Your task to perform on an android device: Check the news Image 0: 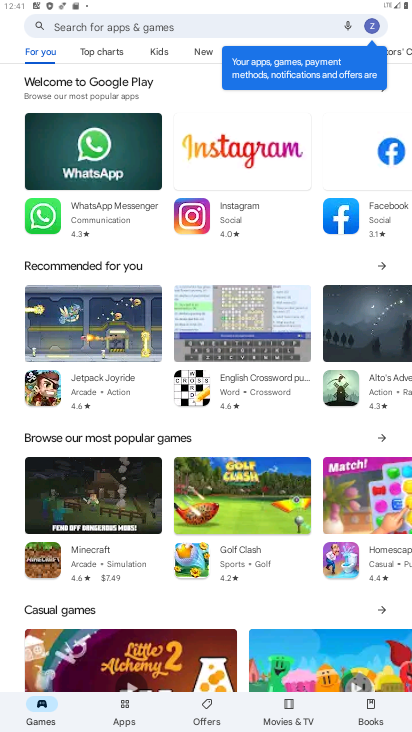
Step 0: press home button
Your task to perform on an android device: Check the news Image 1: 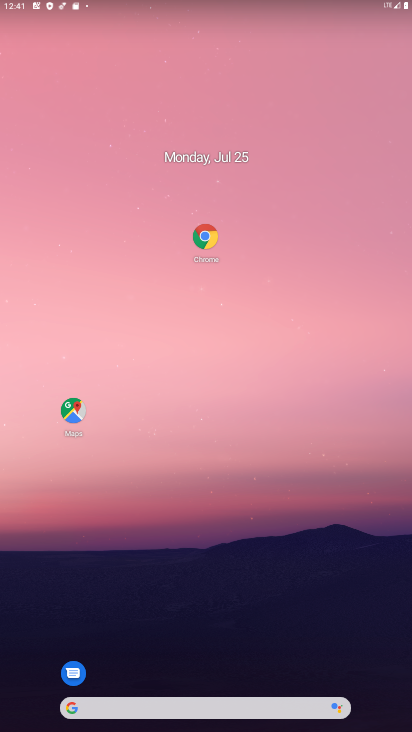
Step 1: drag from (191, 720) to (267, 21)
Your task to perform on an android device: Check the news Image 2: 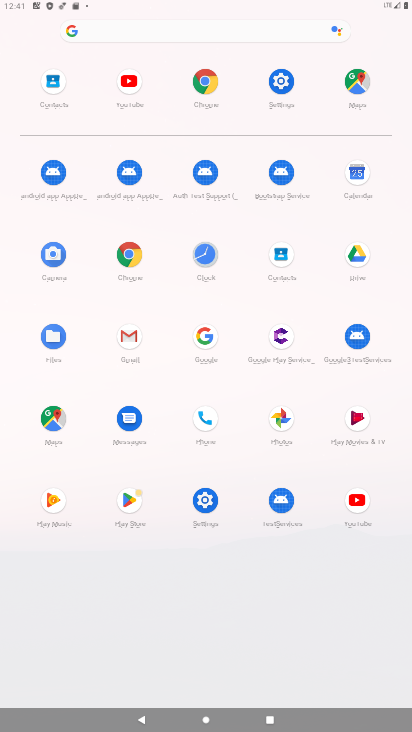
Step 2: click (124, 254)
Your task to perform on an android device: Check the news Image 3: 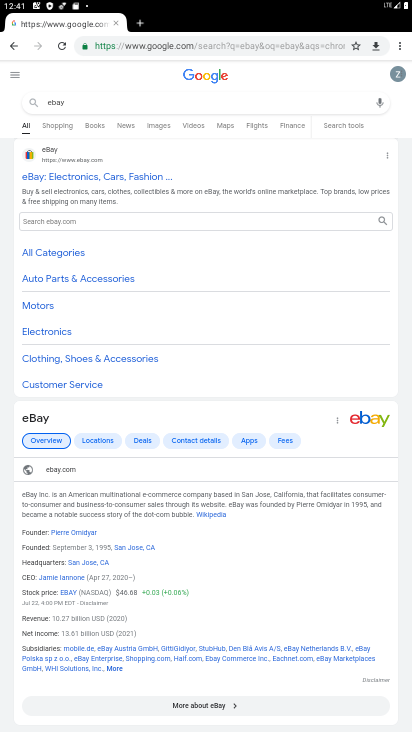
Step 3: click (169, 33)
Your task to perform on an android device: Check the news Image 4: 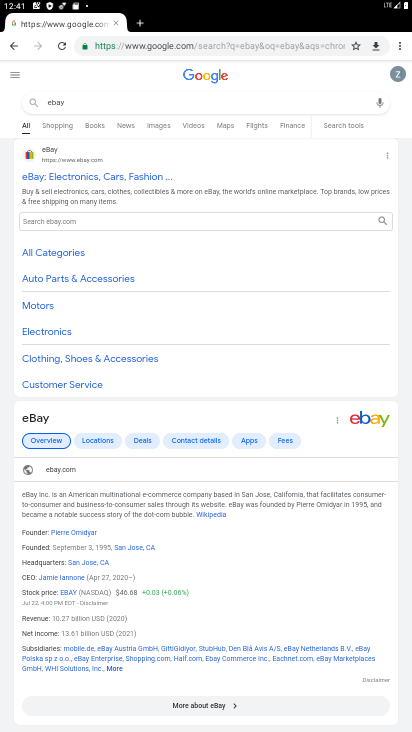
Step 4: click (163, 45)
Your task to perform on an android device: Check the news Image 5: 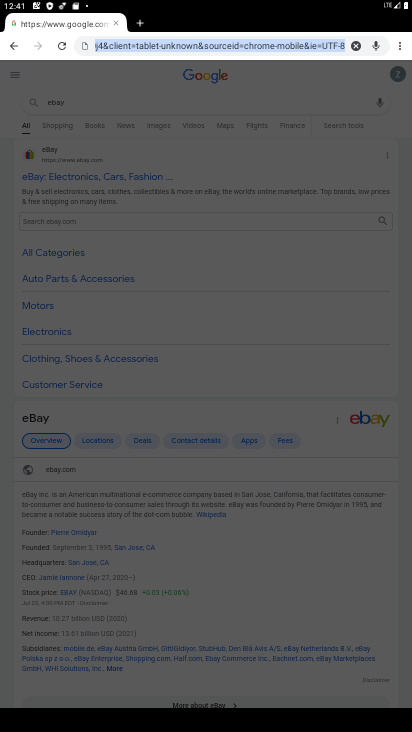
Step 5: click (355, 43)
Your task to perform on an android device: Check the news Image 6: 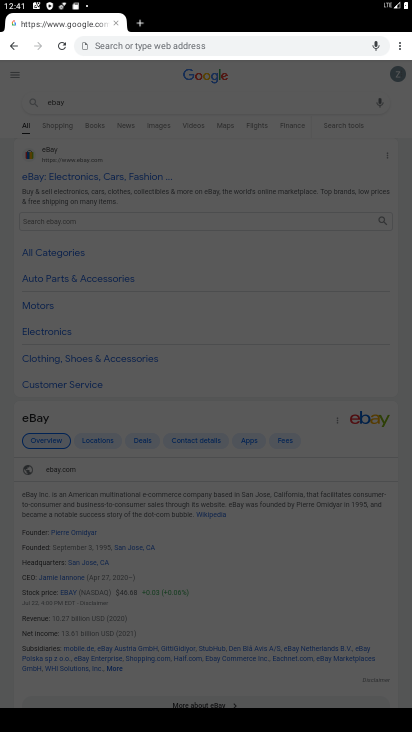
Step 6: type "check the news"
Your task to perform on an android device: Check the news Image 7: 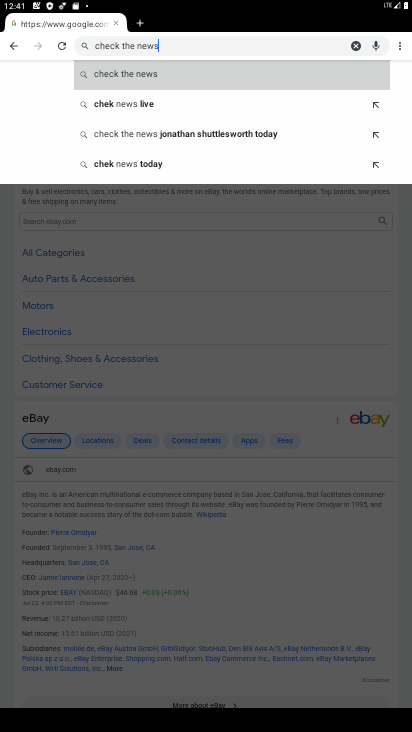
Step 7: click (156, 74)
Your task to perform on an android device: Check the news Image 8: 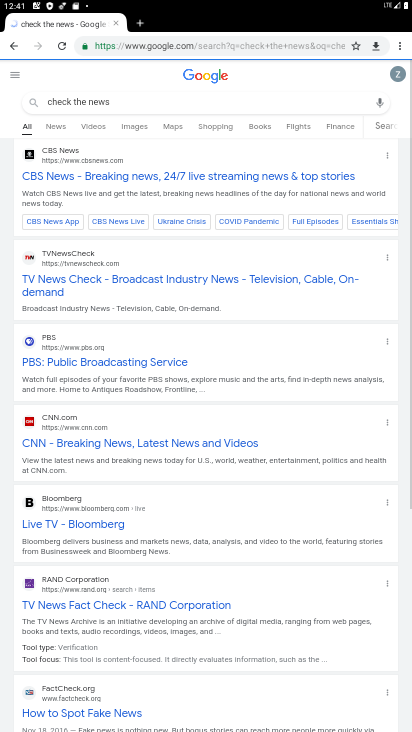
Step 8: task complete